Your task to perform on an android device: Open Youtube and go to "Your channel" Image 0: 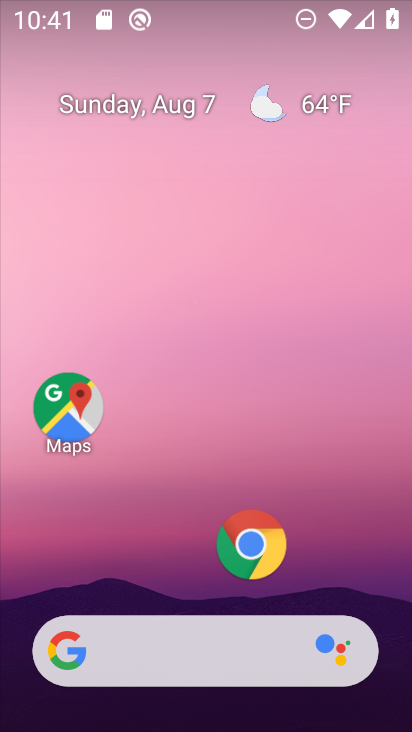
Step 0: drag from (218, 576) to (165, 11)
Your task to perform on an android device: Open Youtube and go to "Your channel" Image 1: 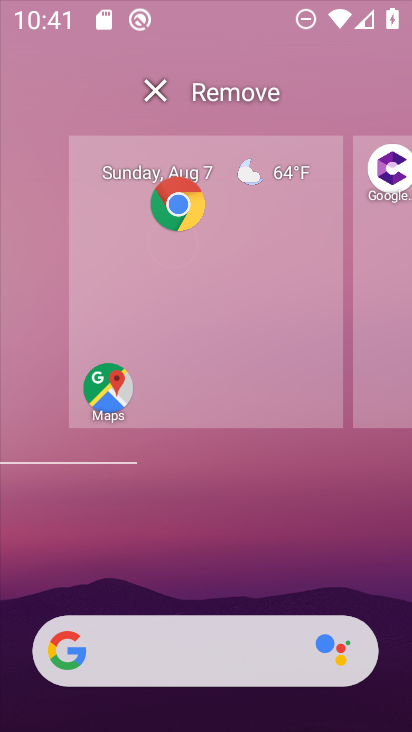
Step 1: click (193, 552)
Your task to perform on an android device: Open Youtube and go to "Your channel" Image 2: 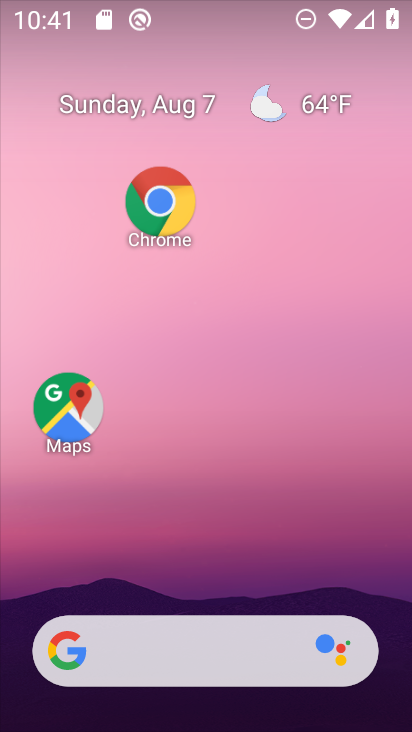
Step 2: drag from (194, 565) to (332, 11)
Your task to perform on an android device: Open Youtube and go to "Your channel" Image 3: 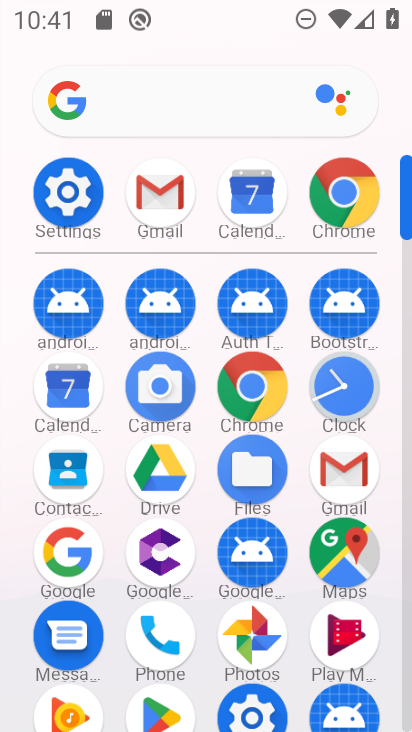
Step 3: drag from (209, 677) to (209, 74)
Your task to perform on an android device: Open Youtube and go to "Your channel" Image 4: 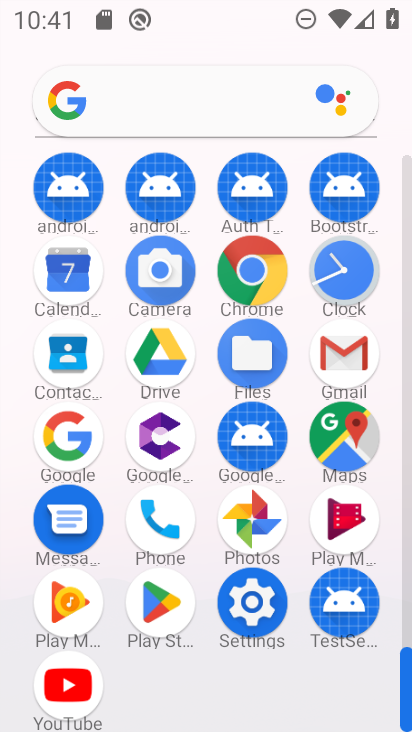
Step 4: click (97, 684)
Your task to perform on an android device: Open Youtube and go to "Your channel" Image 5: 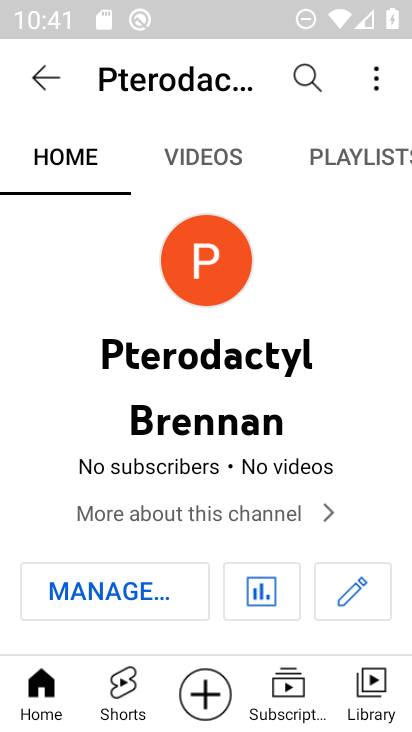
Step 5: click (38, 69)
Your task to perform on an android device: Open Youtube and go to "Your channel" Image 6: 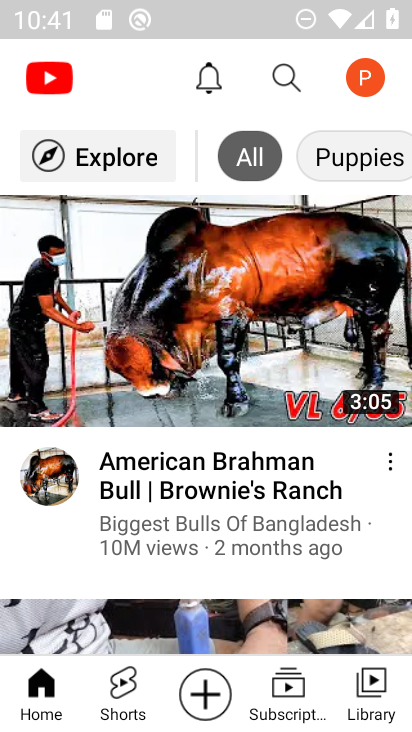
Step 6: click (353, 72)
Your task to perform on an android device: Open Youtube and go to "Your channel" Image 7: 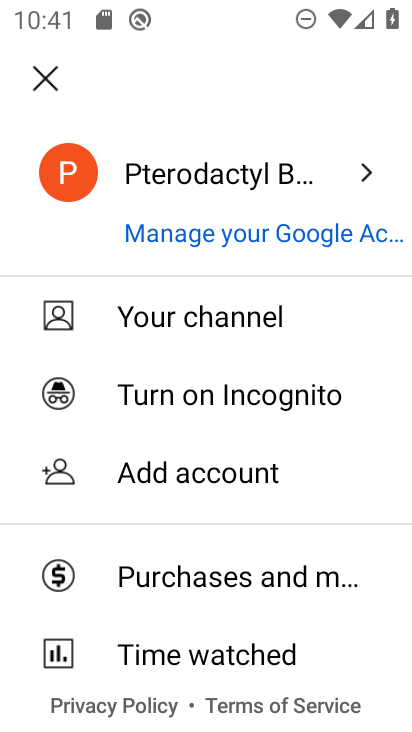
Step 7: click (206, 318)
Your task to perform on an android device: Open Youtube and go to "Your channel" Image 8: 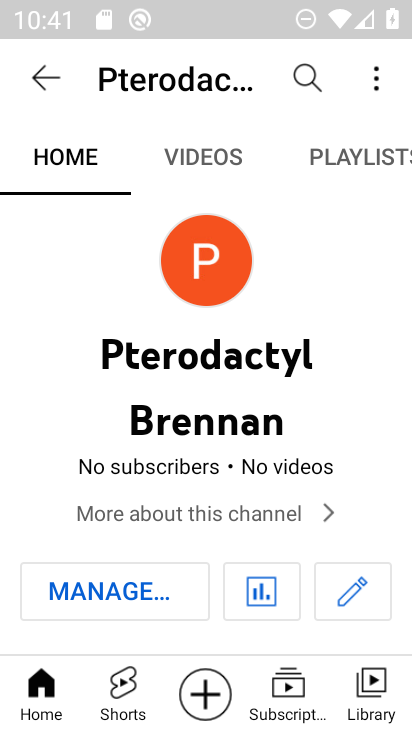
Step 8: task complete